Your task to perform on an android device: Look up the best rated wireless earbuds on Ali Express Image 0: 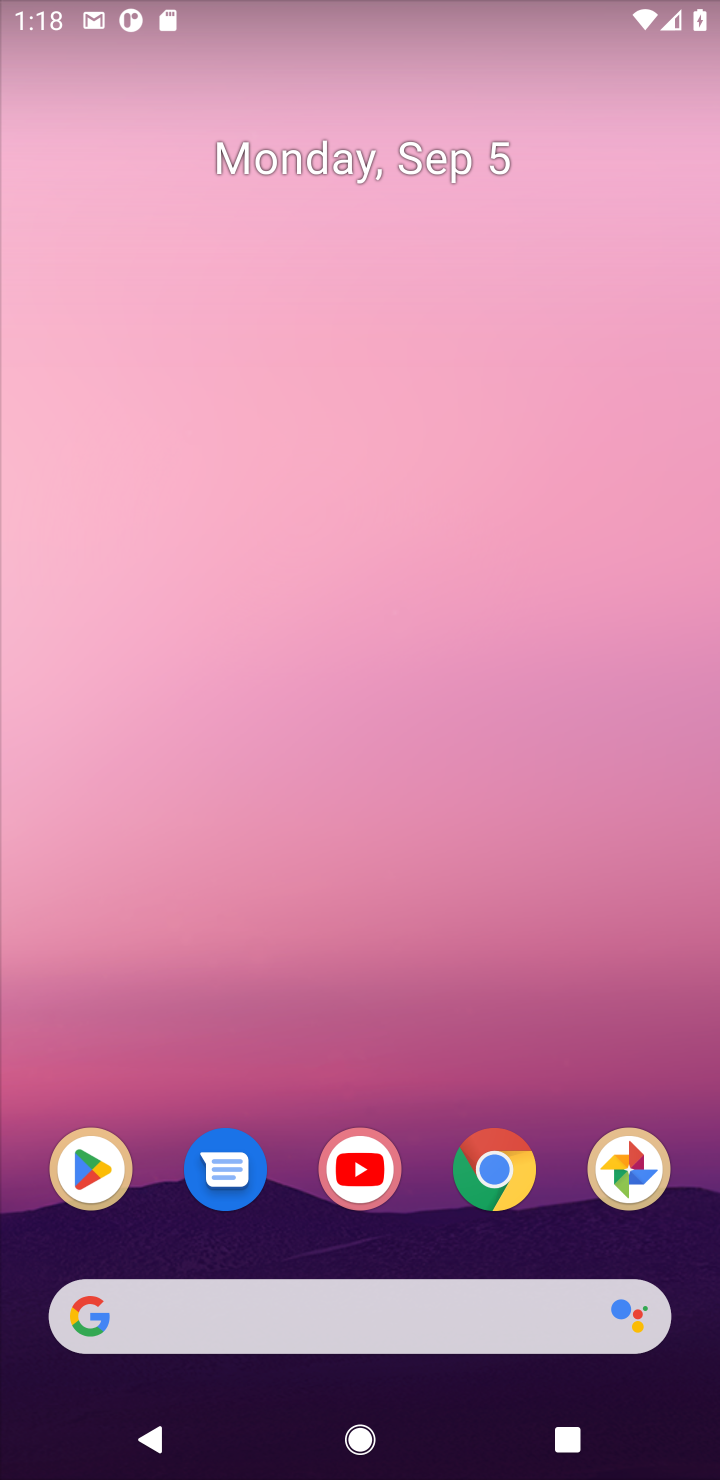
Step 0: click (337, 1150)
Your task to perform on an android device: Look up the best rated wireless earbuds on Ali Express Image 1: 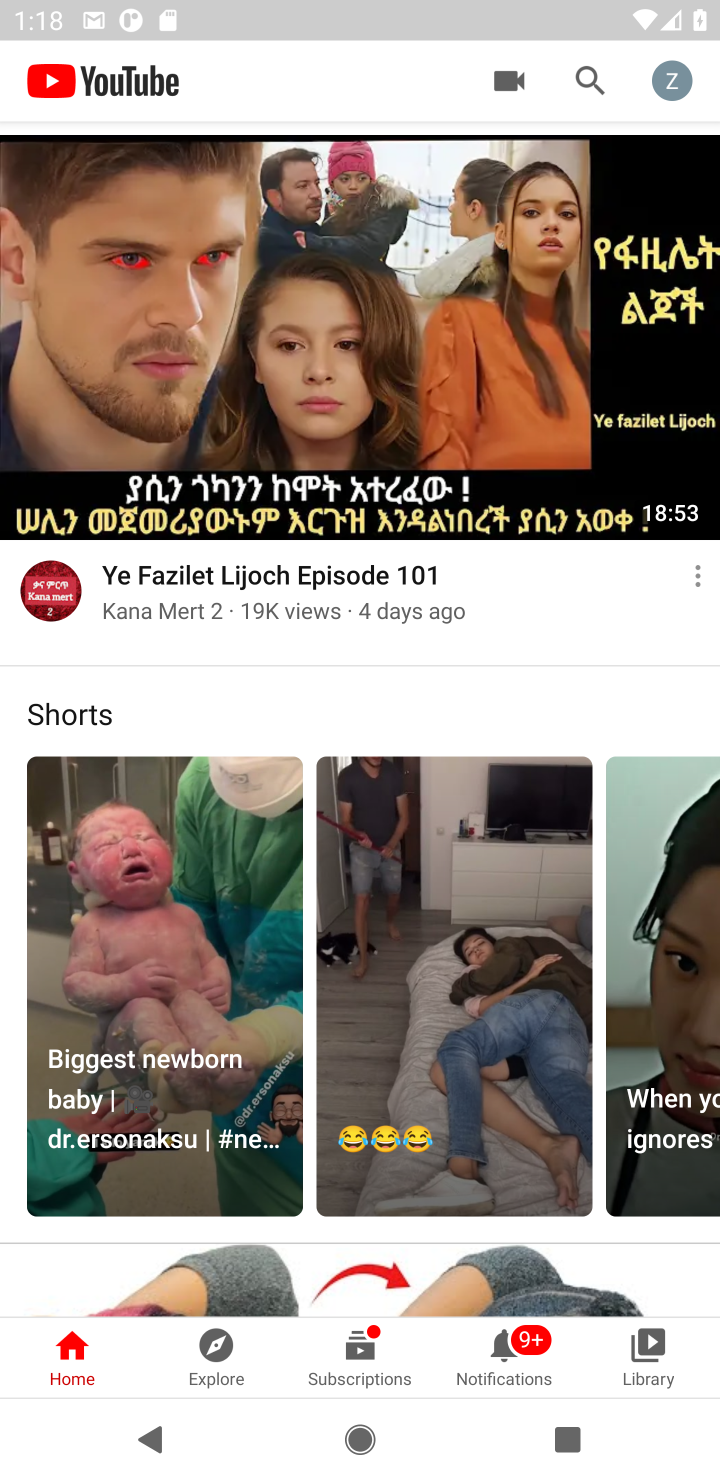
Step 1: task complete